Your task to perform on an android device: turn off data saver in the chrome app Image 0: 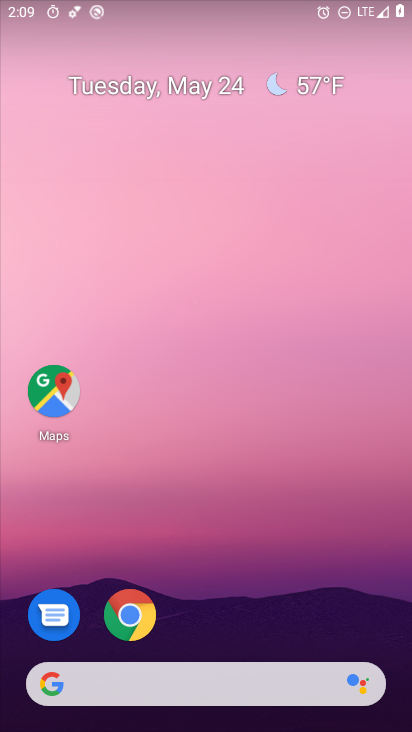
Step 0: click (129, 618)
Your task to perform on an android device: turn off data saver in the chrome app Image 1: 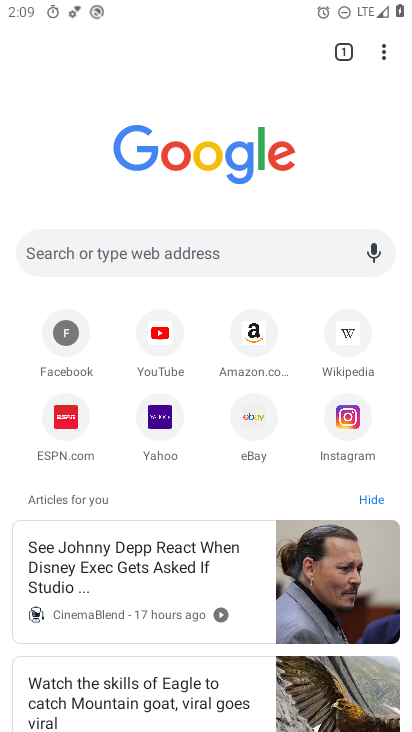
Step 1: click (384, 52)
Your task to perform on an android device: turn off data saver in the chrome app Image 2: 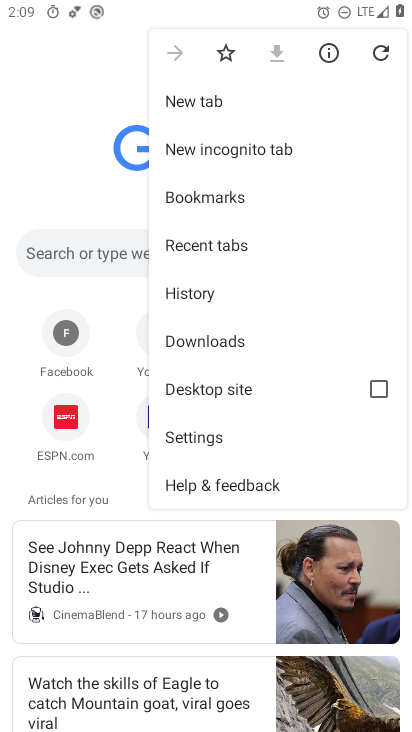
Step 2: click (200, 442)
Your task to perform on an android device: turn off data saver in the chrome app Image 3: 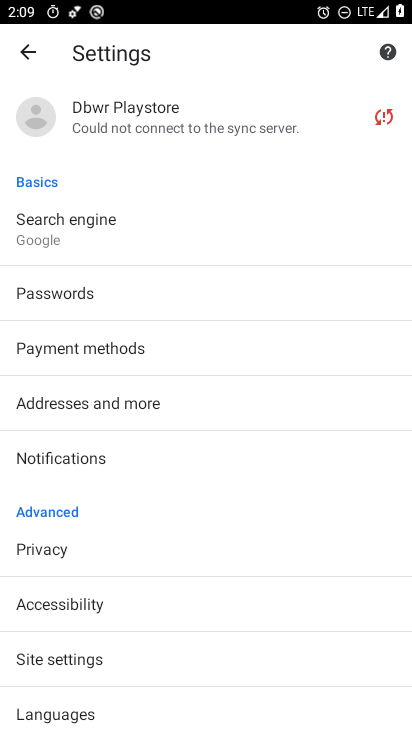
Step 3: drag from (39, 562) to (123, 675)
Your task to perform on an android device: turn off data saver in the chrome app Image 4: 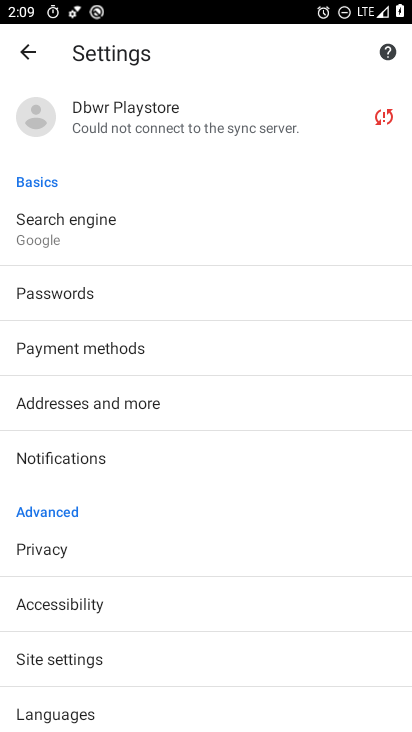
Step 4: drag from (128, 707) to (140, 452)
Your task to perform on an android device: turn off data saver in the chrome app Image 5: 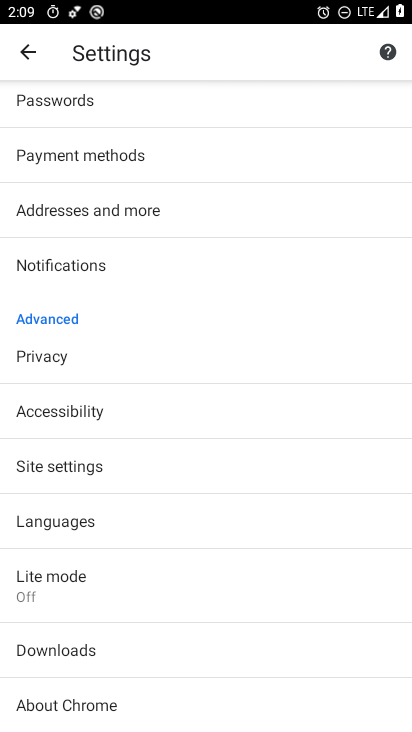
Step 5: click (64, 587)
Your task to perform on an android device: turn off data saver in the chrome app Image 6: 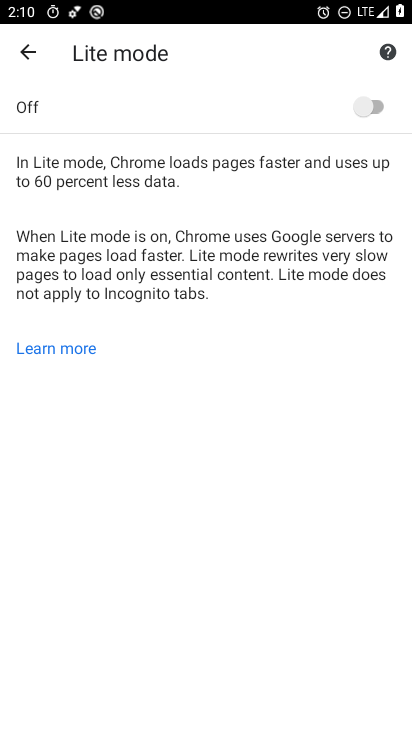
Step 6: task complete